Your task to perform on an android device: set the timer Image 0: 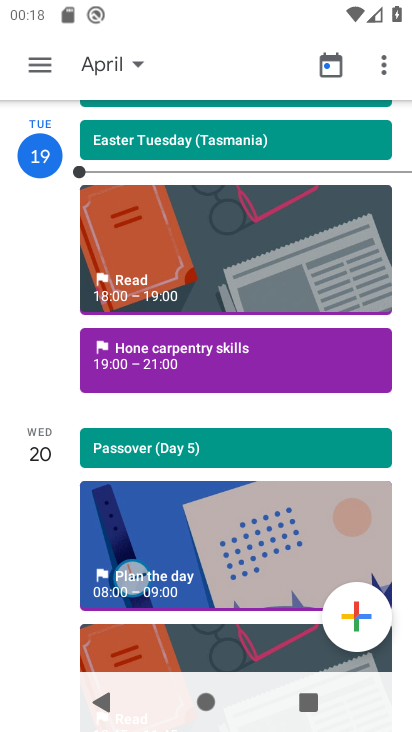
Step 0: press back button
Your task to perform on an android device: set the timer Image 1: 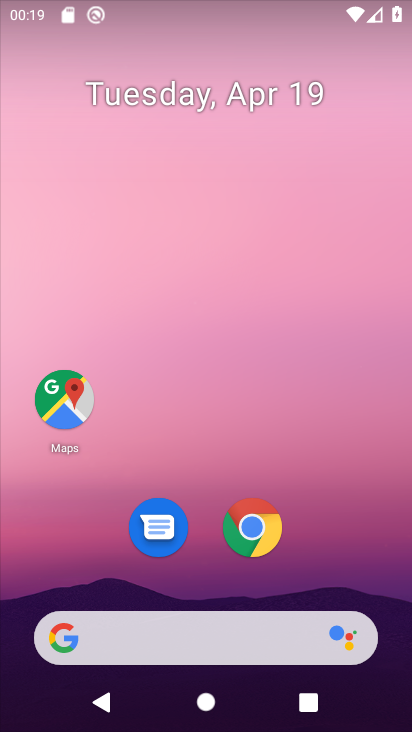
Step 1: drag from (288, 577) to (240, 29)
Your task to perform on an android device: set the timer Image 2: 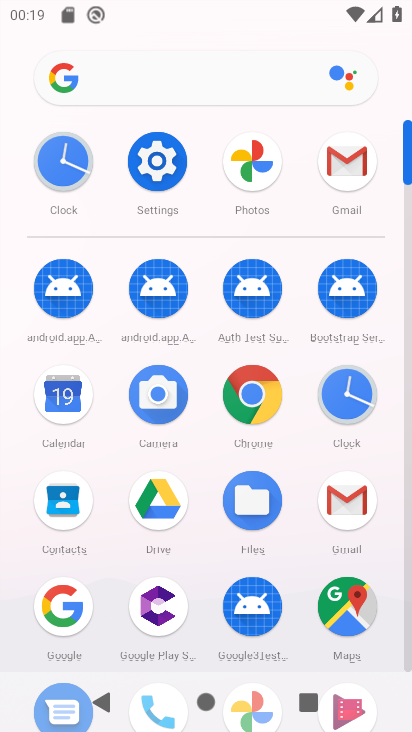
Step 2: click (338, 395)
Your task to perform on an android device: set the timer Image 3: 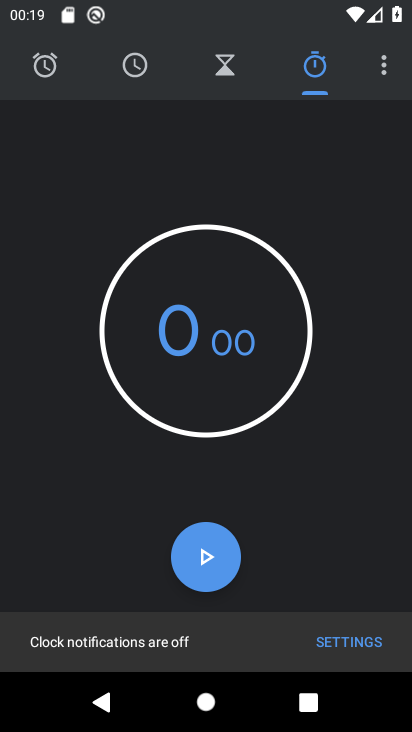
Step 3: click (232, 58)
Your task to perform on an android device: set the timer Image 4: 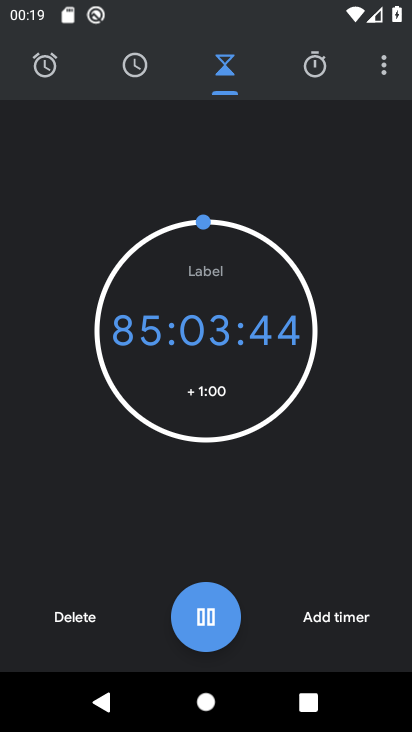
Step 4: click (347, 626)
Your task to perform on an android device: set the timer Image 5: 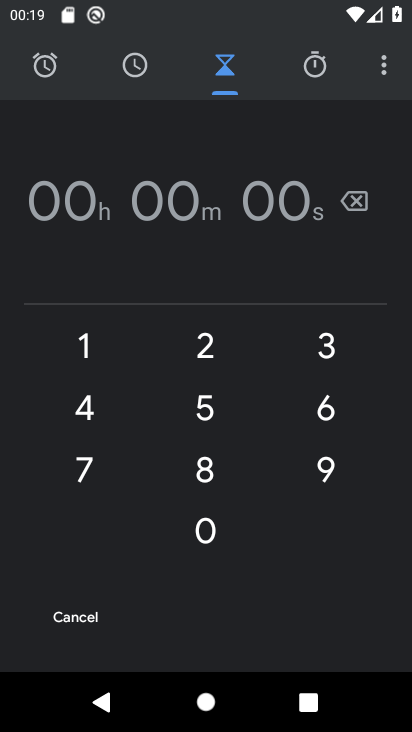
Step 5: click (86, 398)
Your task to perform on an android device: set the timer Image 6: 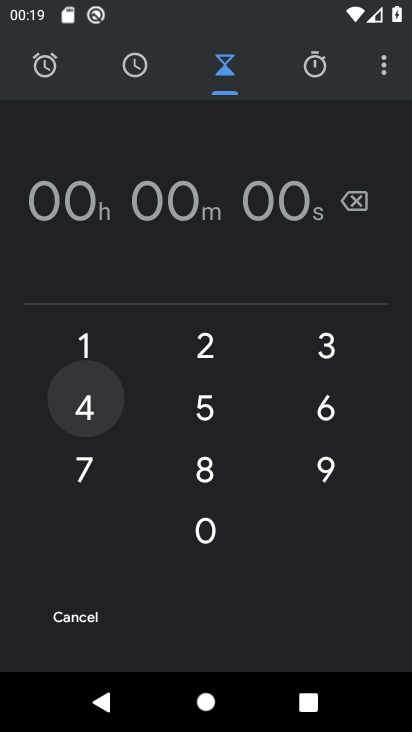
Step 6: click (89, 465)
Your task to perform on an android device: set the timer Image 7: 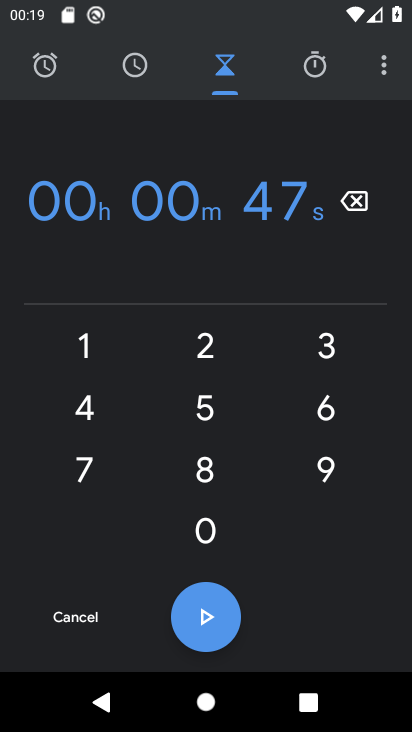
Step 7: click (202, 456)
Your task to perform on an android device: set the timer Image 8: 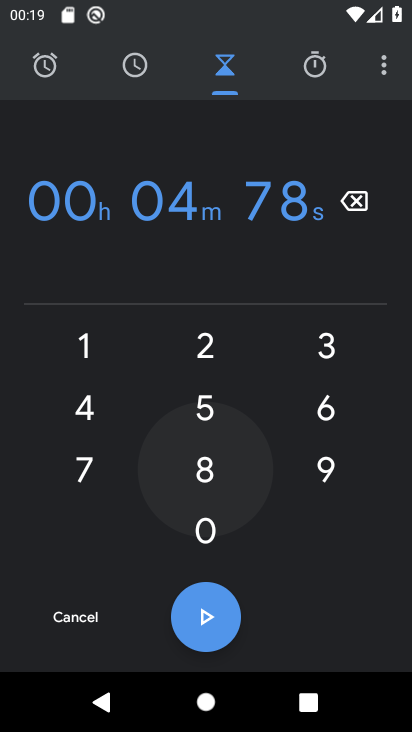
Step 8: click (207, 407)
Your task to perform on an android device: set the timer Image 9: 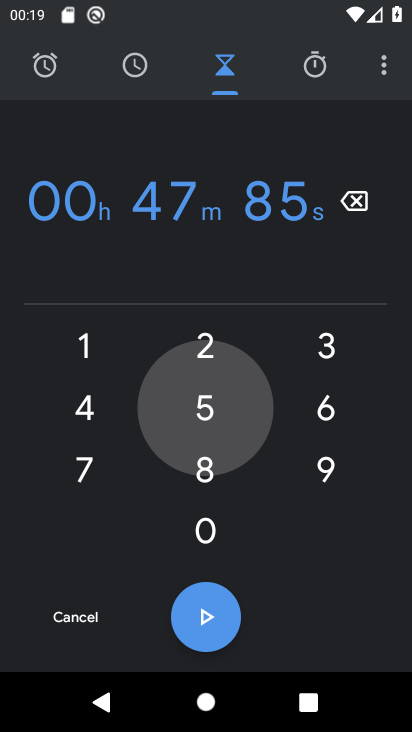
Step 9: click (209, 343)
Your task to perform on an android device: set the timer Image 10: 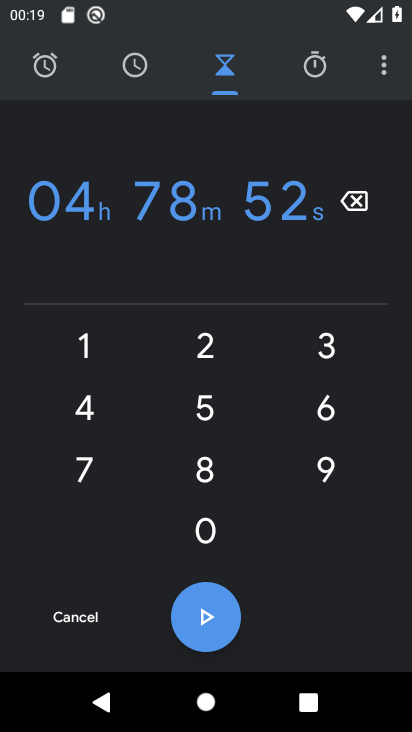
Step 10: click (323, 351)
Your task to perform on an android device: set the timer Image 11: 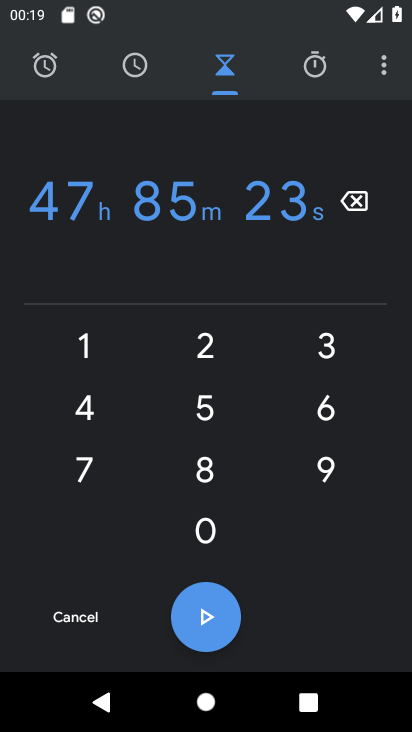
Step 11: click (195, 618)
Your task to perform on an android device: set the timer Image 12: 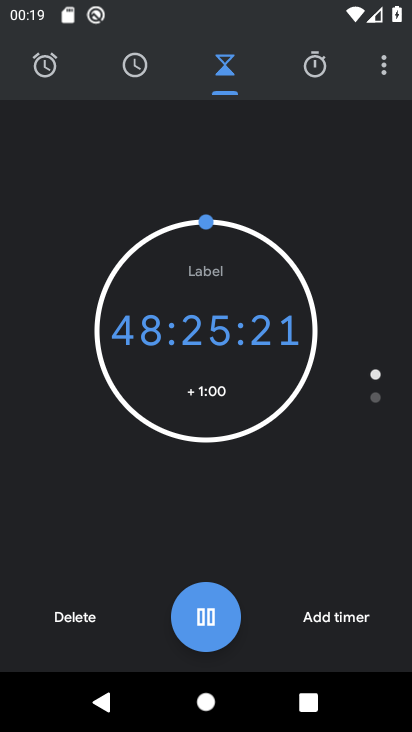
Step 12: task complete